Your task to perform on an android device: Go to Android settings Image 0: 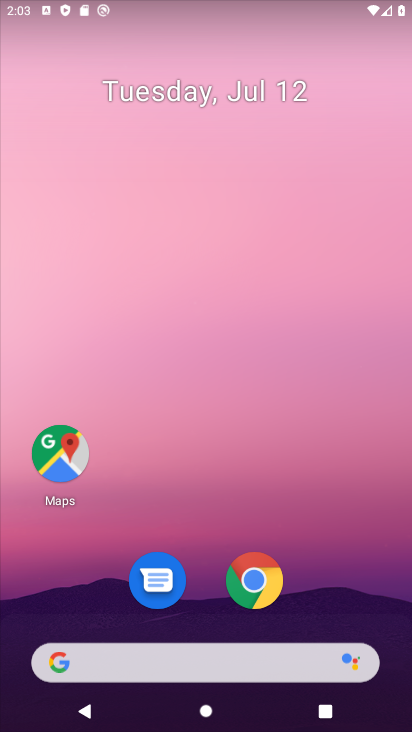
Step 0: drag from (212, 610) to (232, 110)
Your task to perform on an android device: Go to Android settings Image 1: 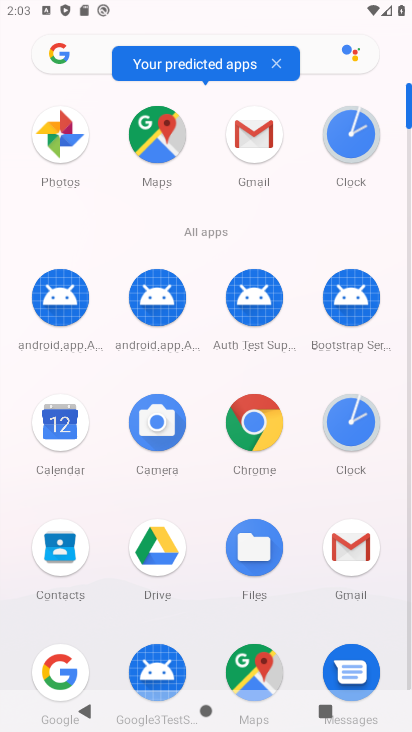
Step 1: drag from (200, 656) to (204, 189)
Your task to perform on an android device: Go to Android settings Image 2: 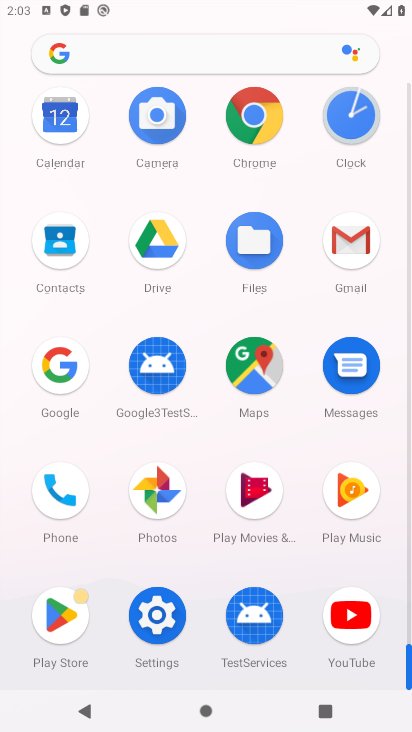
Step 2: click (162, 628)
Your task to perform on an android device: Go to Android settings Image 3: 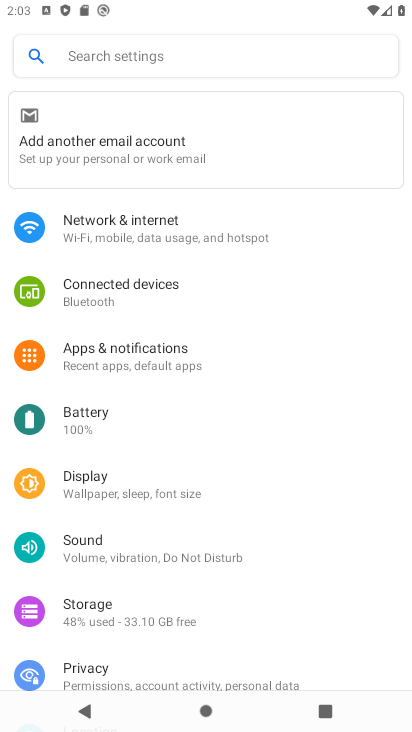
Step 3: task complete